Your task to perform on an android device: Search for custom wallets on etsy. Image 0: 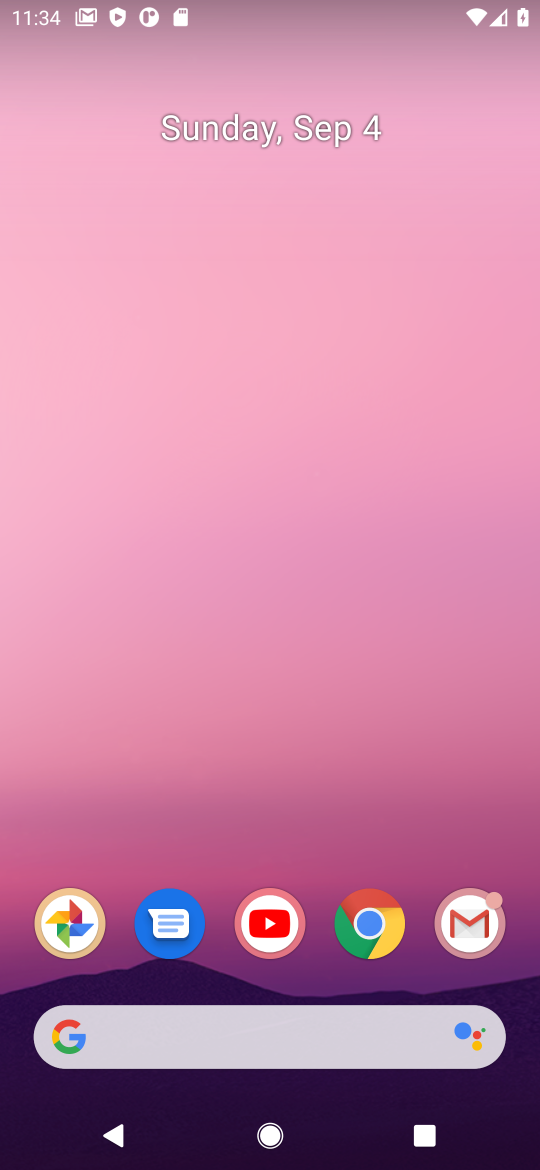
Step 0: click (357, 912)
Your task to perform on an android device: Search for custom wallets on etsy. Image 1: 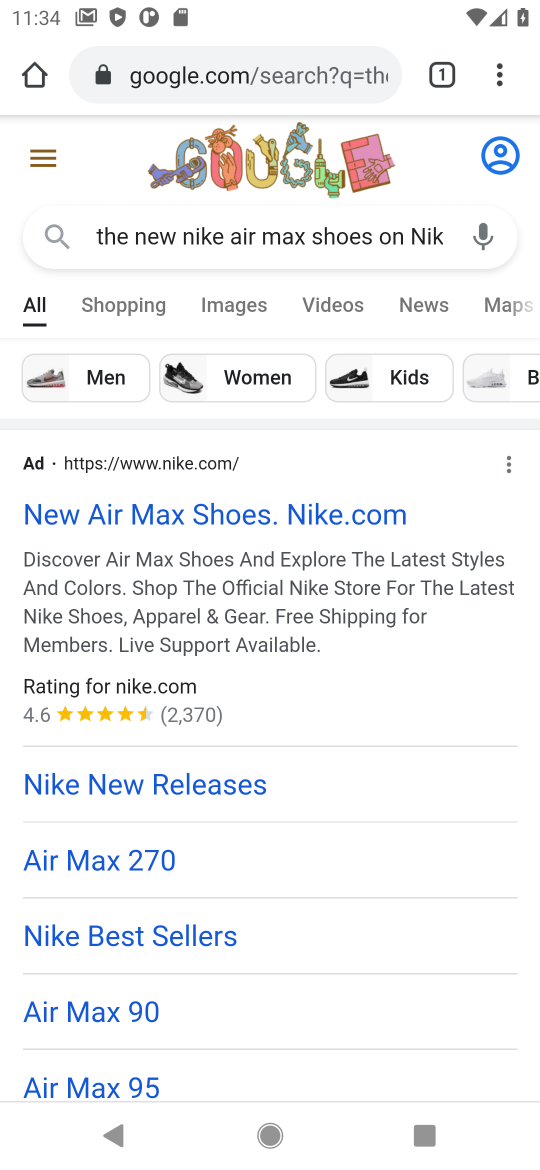
Step 1: press back button
Your task to perform on an android device: Search for custom wallets on etsy. Image 2: 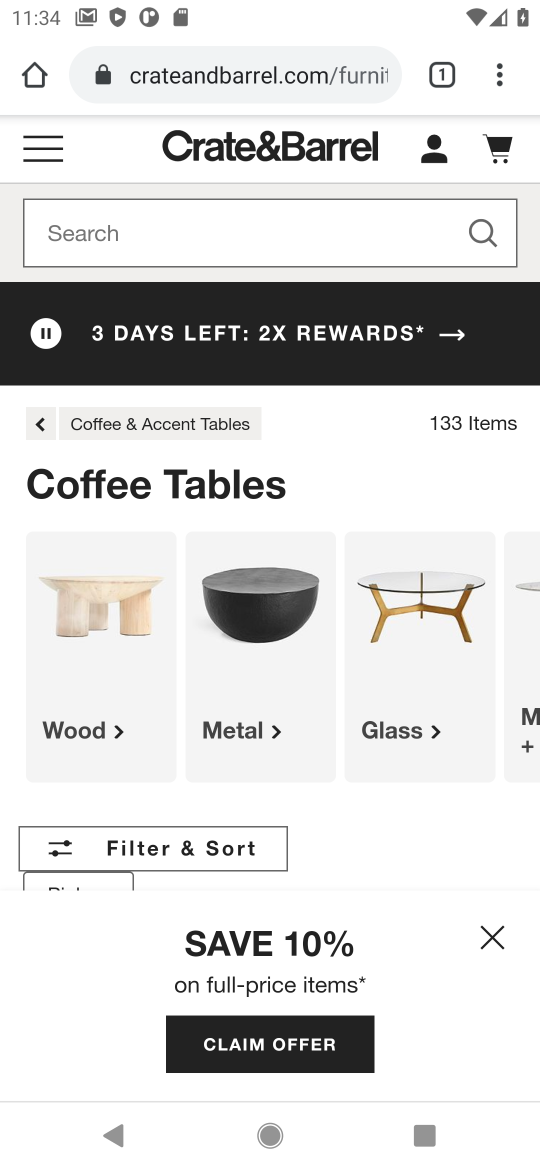
Step 2: click (211, 69)
Your task to perform on an android device: Search for custom wallets on etsy. Image 3: 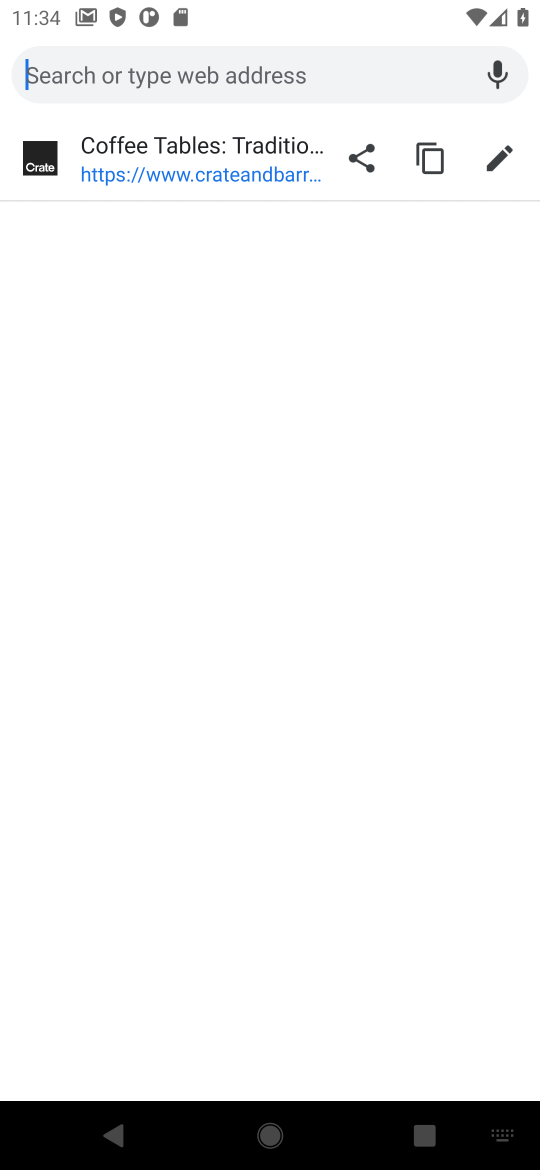
Step 3: type "custom wallets on etsy."
Your task to perform on an android device: Search for custom wallets on etsy. Image 4: 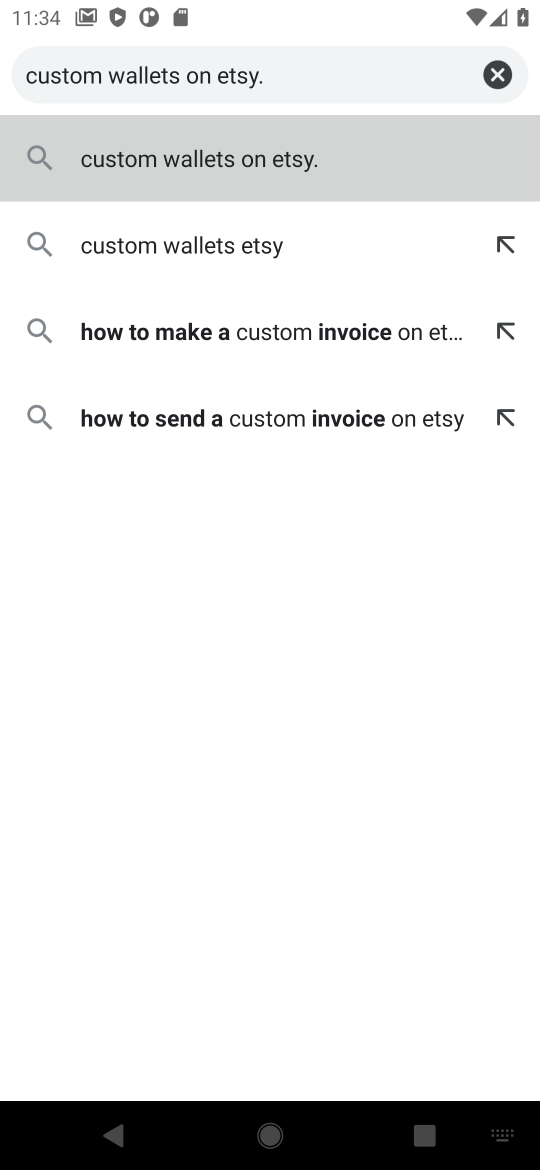
Step 4: click (270, 176)
Your task to perform on an android device: Search for custom wallets on etsy. Image 5: 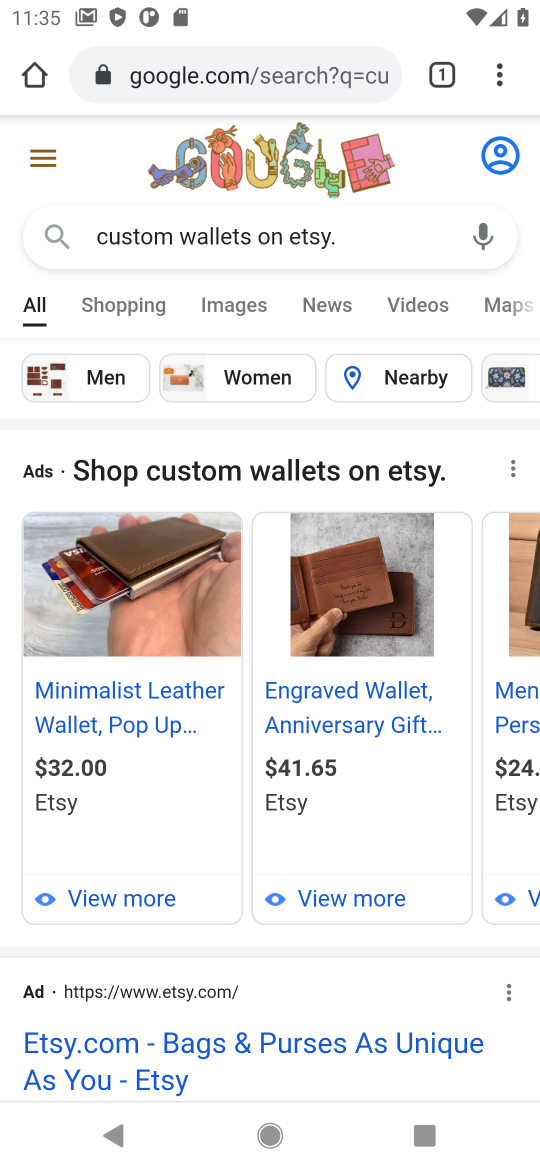
Step 5: task complete